Your task to perform on an android device: open sync settings in chrome Image 0: 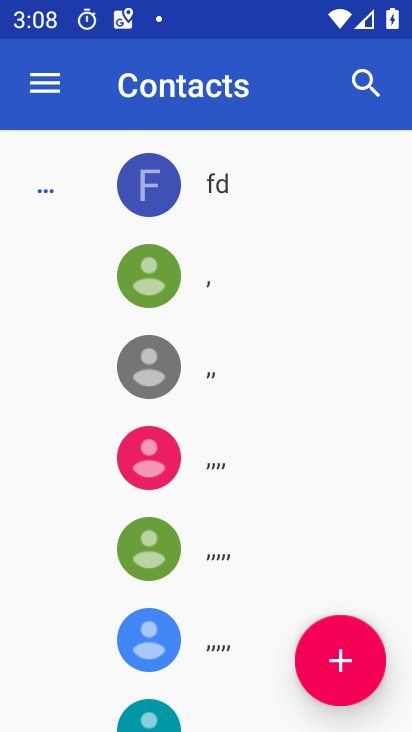
Step 0: press home button
Your task to perform on an android device: open sync settings in chrome Image 1: 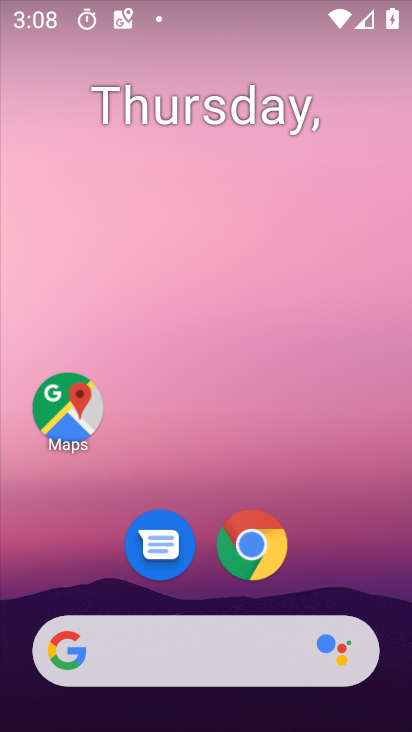
Step 1: click (258, 552)
Your task to perform on an android device: open sync settings in chrome Image 2: 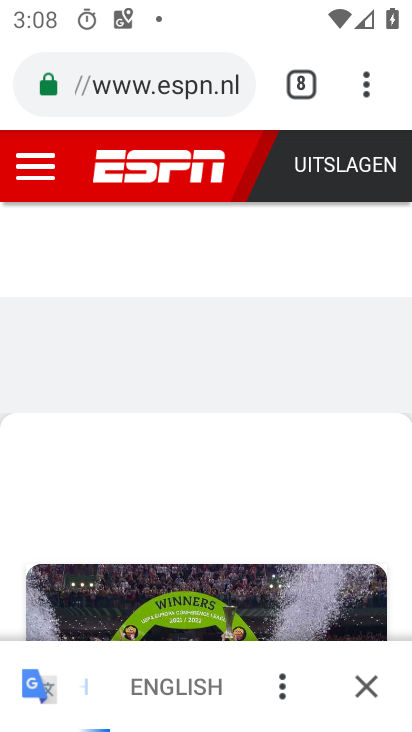
Step 2: click (367, 90)
Your task to perform on an android device: open sync settings in chrome Image 3: 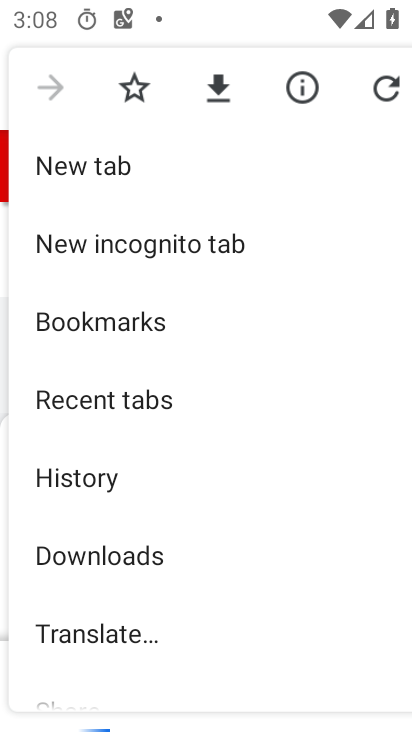
Step 3: drag from (159, 654) to (159, 185)
Your task to perform on an android device: open sync settings in chrome Image 4: 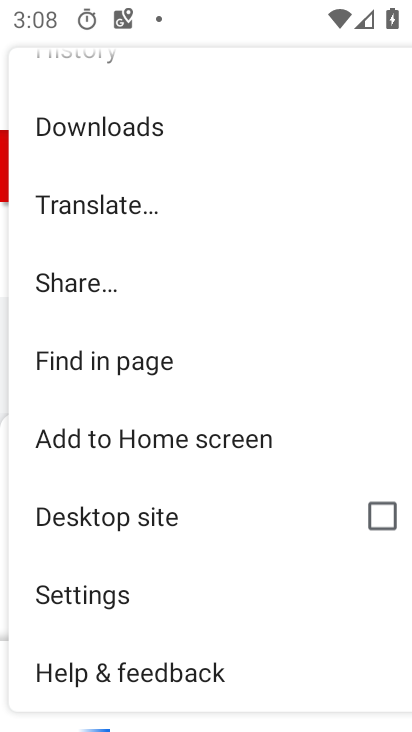
Step 4: click (75, 594)
Your task to perform on an android device: open sync settings in chrome Image 5: 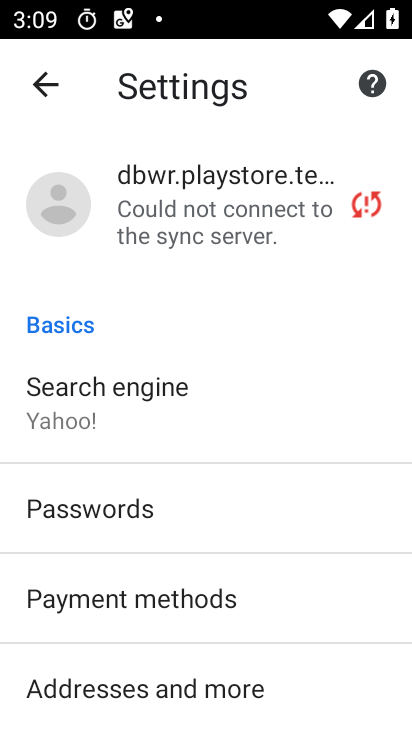
Step 5: drag from (126, 656) to (138, 295)
Your task to perform on an android device: open sync settings in chrome Image 6: 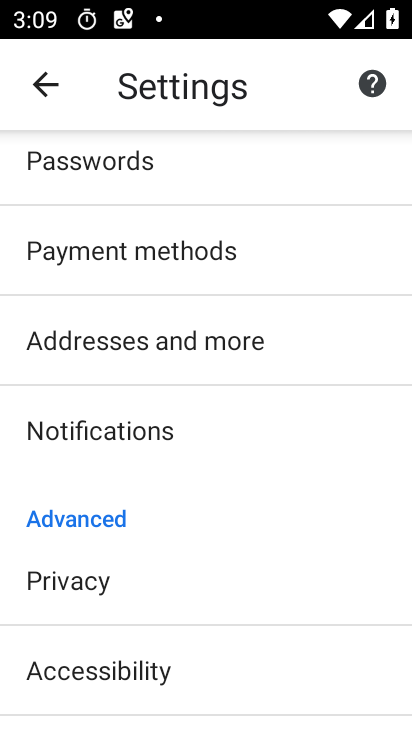
Step 6: drag from (98, 680) to (105, 309)
Your task to perform on an android device: open sync settings in chrome Image 7: 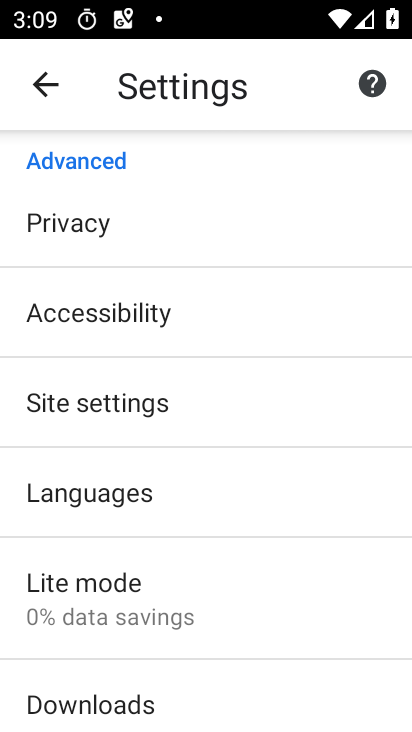
Step 7: click (92, 404)
Your task to perform on an android device: open sync settings in chrome Image 8: 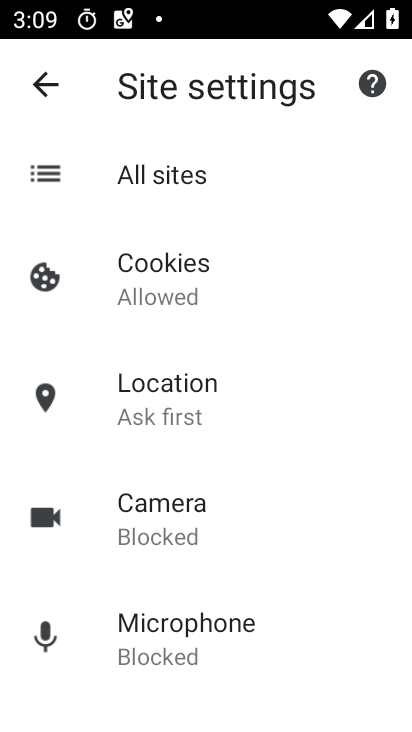
Step 8: drag from (140, 692) to (145, 169)
Your task to perform on an android device: open sync settings in chrome Image 9: 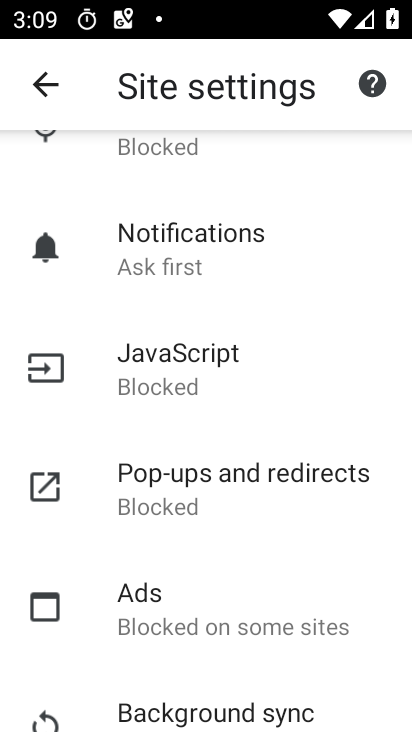
Step 9: drag from (200, 685) to (200, 202)
Your task to perform on an android device: open sync settings in chrome Image 10: 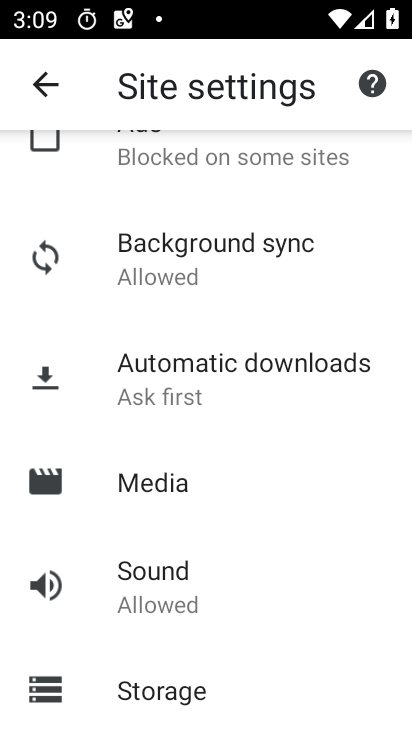
Step 10: click (149, 256)
Your task to perform on an android device: open sync settings in chrome Image 11: 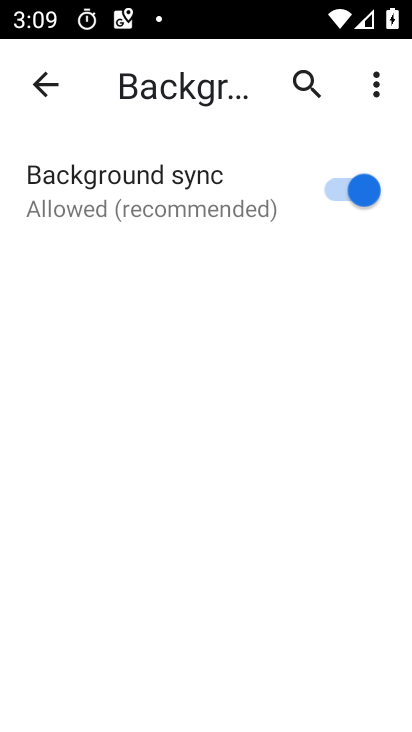
Step 11: task complete